Your task to perform on an android device: Turn off the flashlight Image 0: 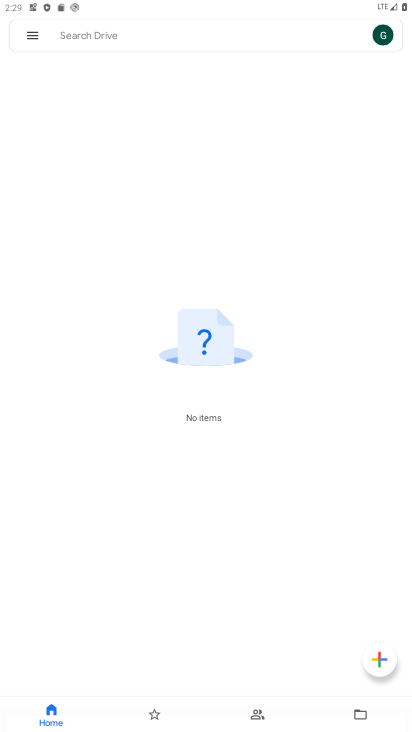
Step 0: press home button
Your task to perform on an android device: Turn off the flashlight Image 1: 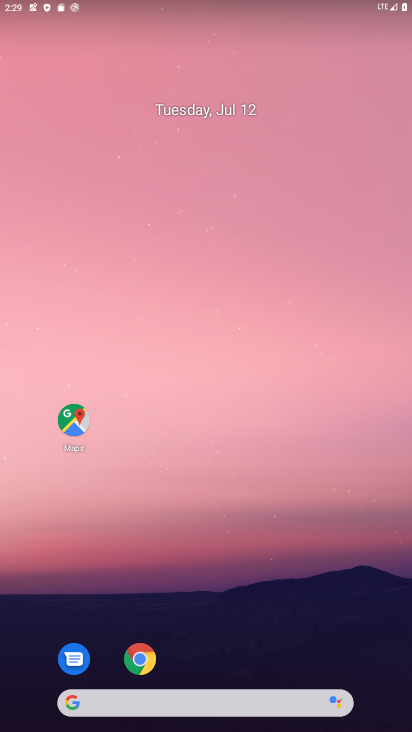
Step 1: drag from (225, 719) to (224, 206)
Your task to perform on an android device: Turn off the flashlight Image 2: 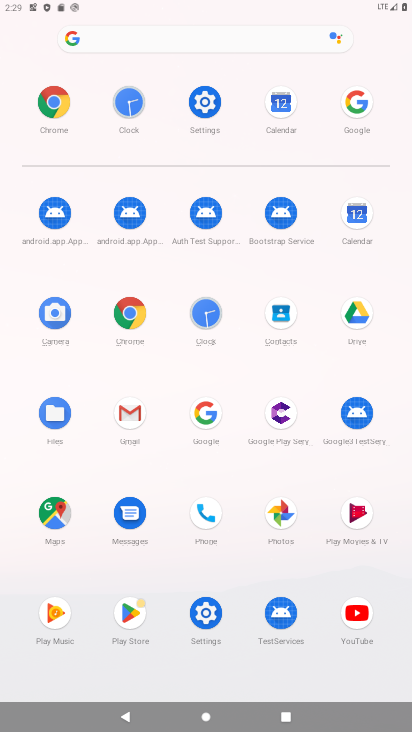
Step 2: click (205, 107)
Your task to perform on an android device: Turn off the flashlight Image 3: 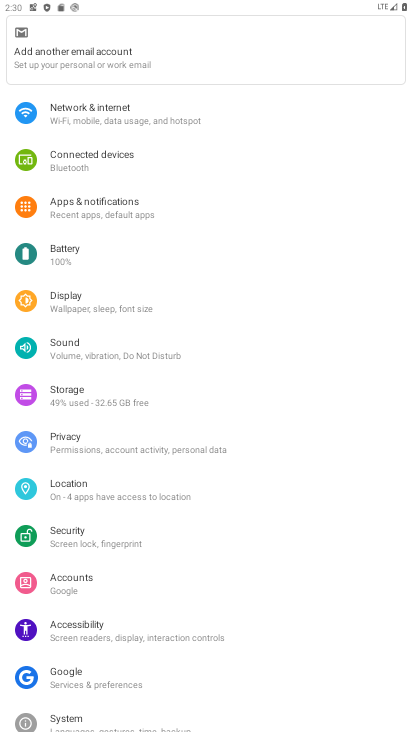
Step 3: task complete